Your task to perform on an android device: set an alarm Image 0: 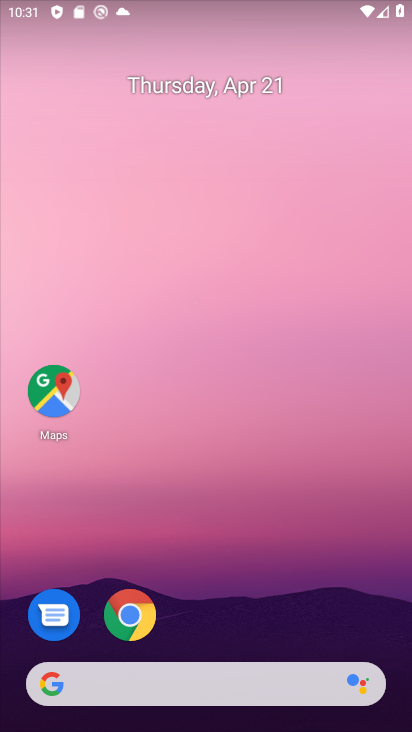
Step 0: drag from (210, 640) to (210, 65)
Your task to perform on an android device: set an alarm Image 1: 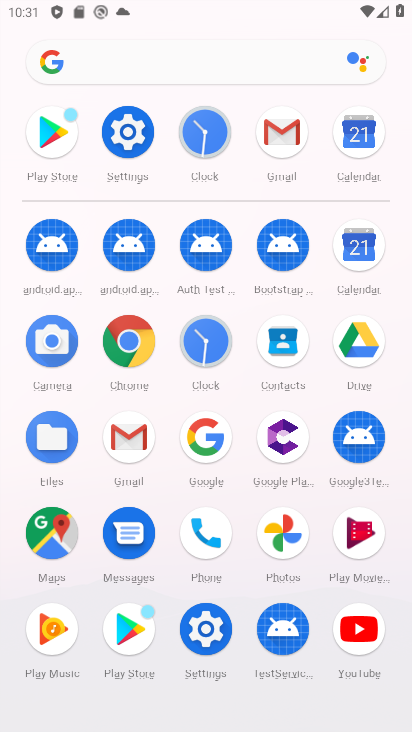
Step 1: click (203, 333)
Your task to perform on an android device: set an alarm Image 2: 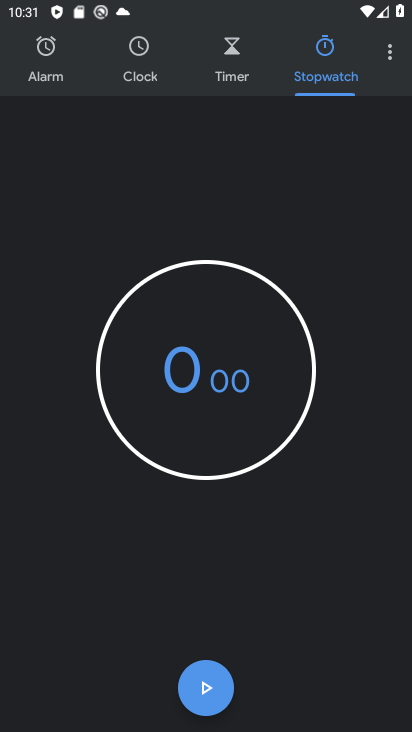
Step 2: click (41, 44)
Your task to perform on an android device: set an alarm Image 3: 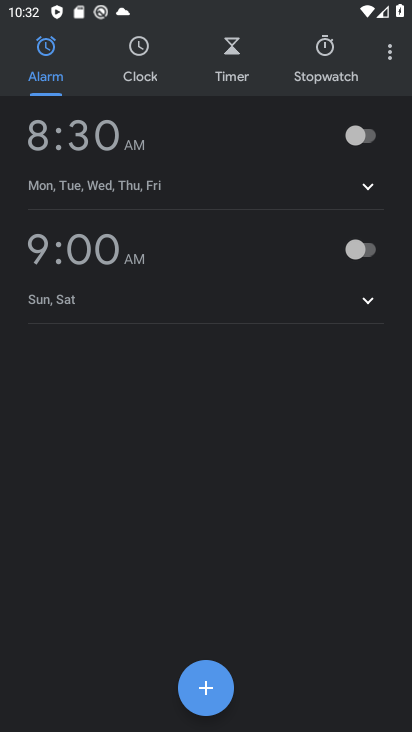
Step 3: click (177, 132)
Your task to perform on an android device: set an alarm Image 4: 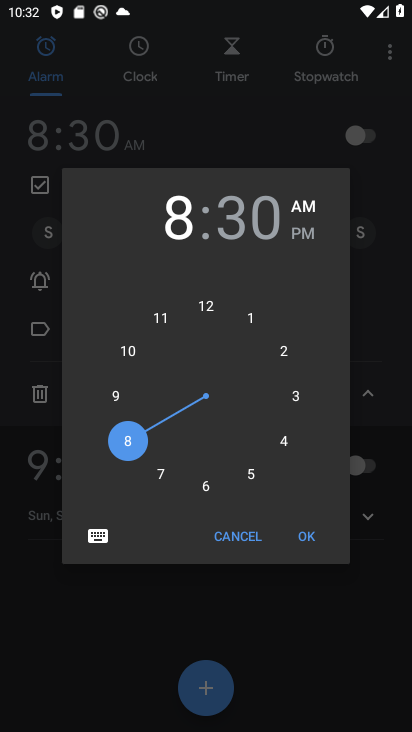
Step 4: drag from (129, 442) to (118, 348)
Your task to perform on an android device: set an alarm Image 5: 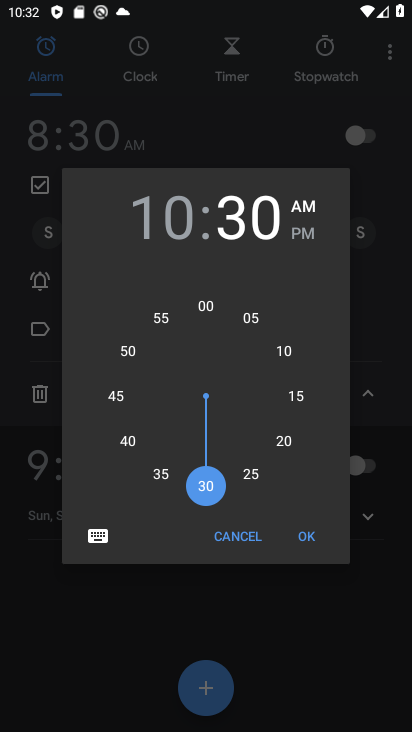
Step 5: click (310, 542)
Your task to perform on an android device: set an alarm Image 6: 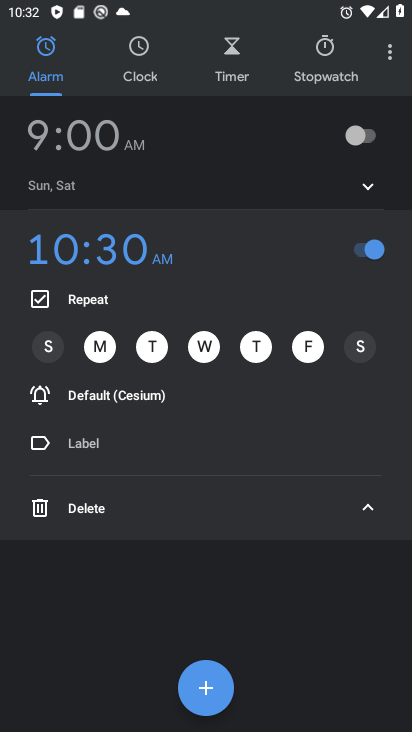
Step 6: task complete